Your task to perform on an android device: change timer sound Image 0: 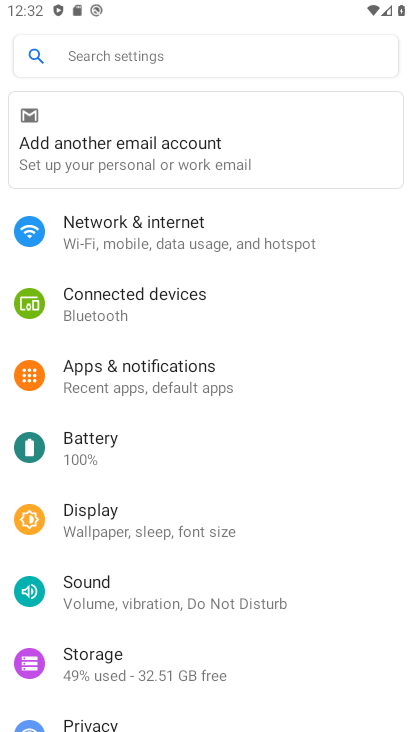
Step 0: press home button
Your task to perform on an android device: change timer sound Image 1: 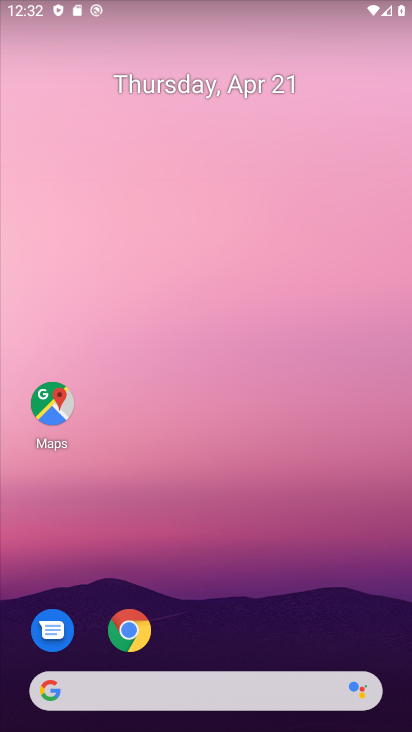
Step 1: drag from (282, 598) to (268, 4)
Your task to perform on an android device: change timer sound Image 2: 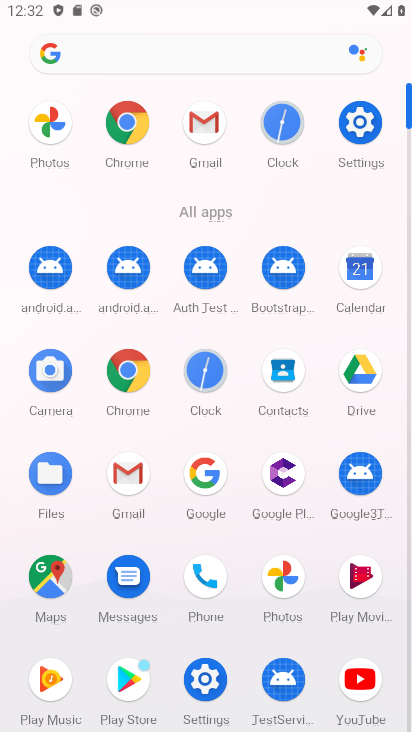
Step 2: click (274, 149)
Your task to perform on an android device: change timer sound Image 3: 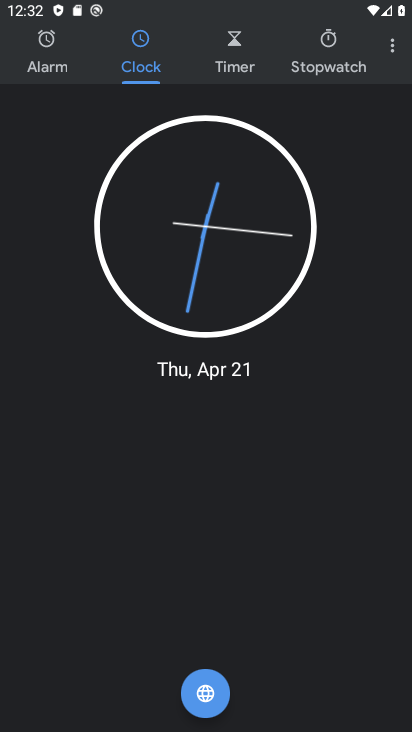
Step 3: click (392, 47)
Your task to perform on an android device: change timer sound Image 4: 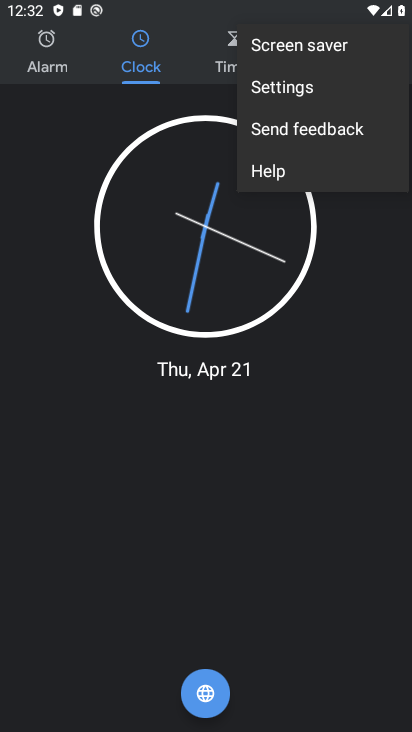
Step 4: click (308, 74)
Your task to perform on an android device: change timer sound Image 5: 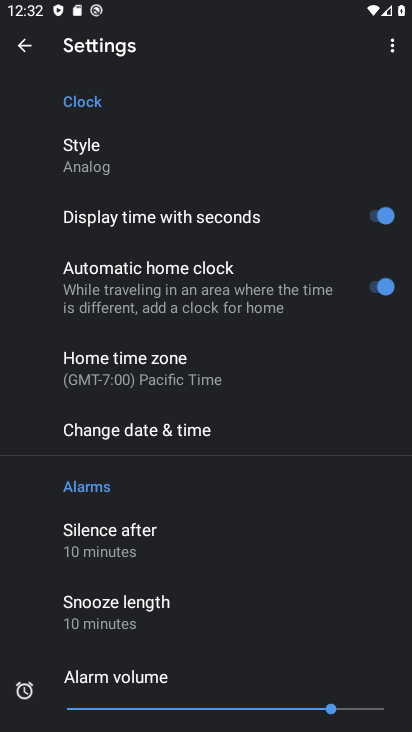
Step 5: drag from (146, 619) to (212, 157)
Your task to perform on an android device: change timer sound Image 6: 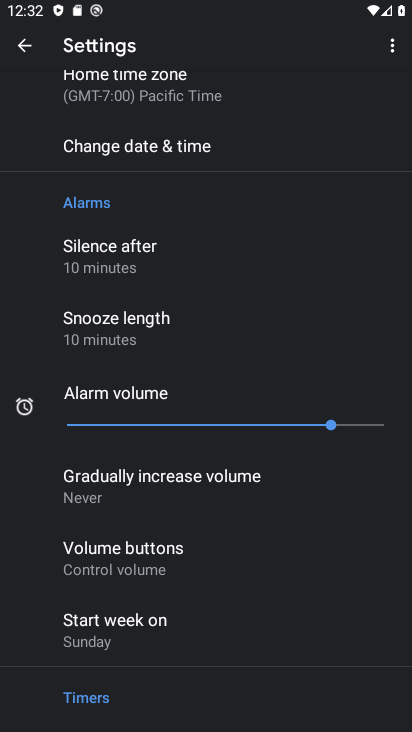
Step 6: drag from (157, 604) to (240, 150)
Your task to perform on an android device: change timer sound Image 7: 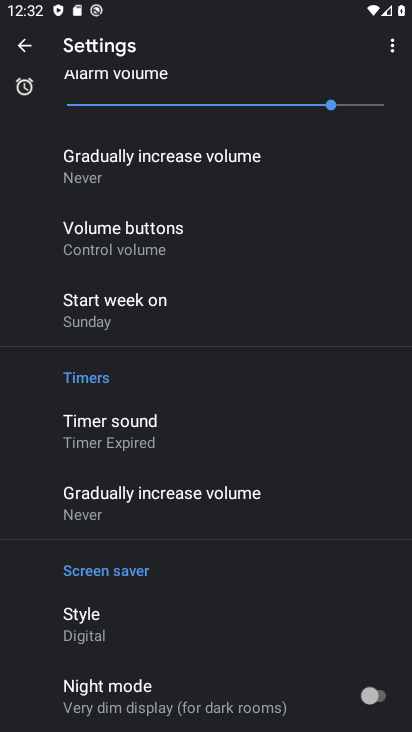
Step 7: click (157, 441)
Your task to perform on an android device: change timer sound Image 8: 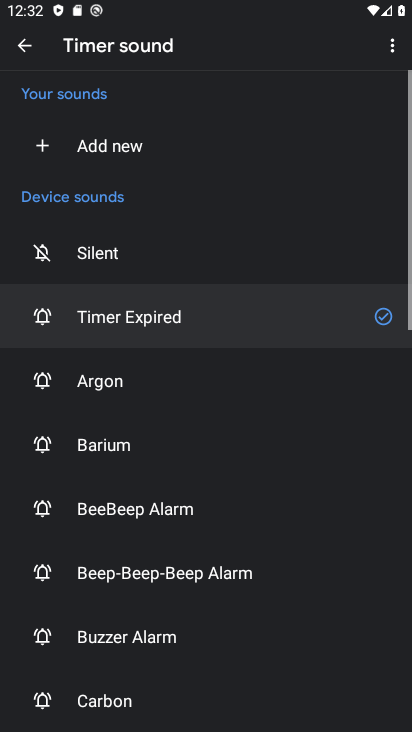
Step 8: click (149, 443)
Your task to perform on an android device: change timer sound Image 9: 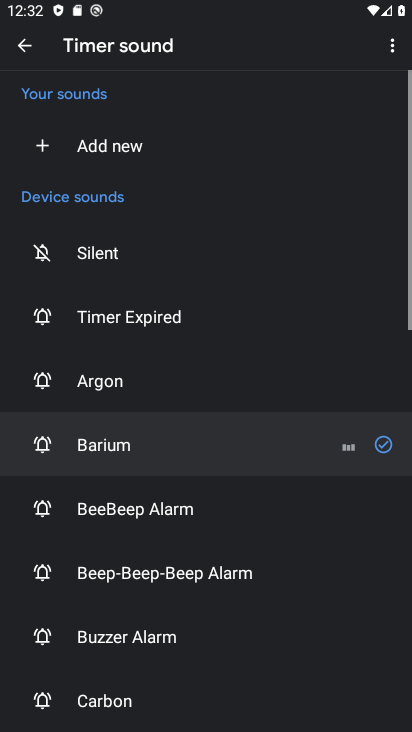
Step 9: task complete